Your task to perform on an android device: turn vacation reply on in the gmail app Image 0: 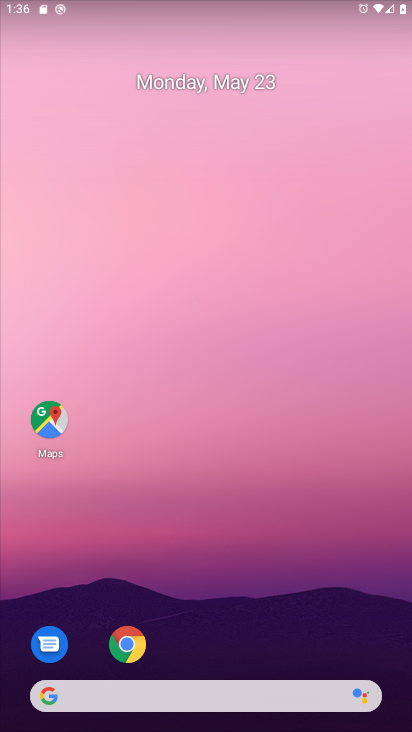
Step 0: drag from (227, 642) to (234, 137)
Your task to perform on an android device: turn vacation reply on in the gmail app Image 1: 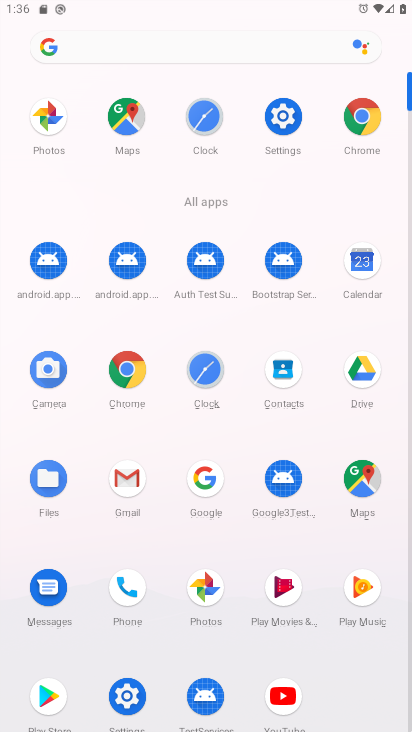
Step 1: click (118, 492)
Your task to perform on an android device: turn vacation reply on in the gmail app Image 2: 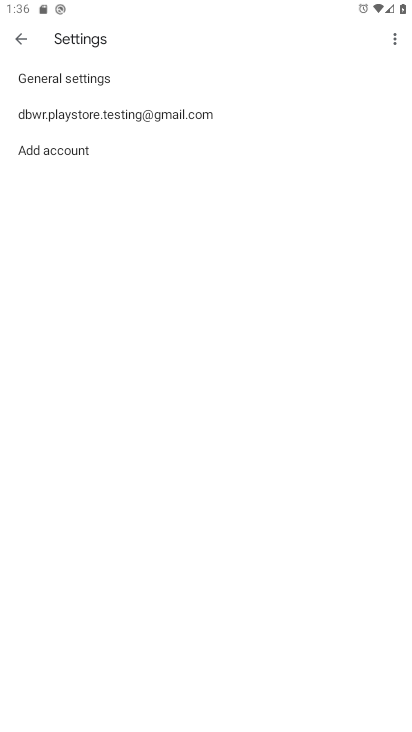
Step 2: click (149, 115)
Your task to perform on an android device: turn vacation reply on in the gmail app Image 3: 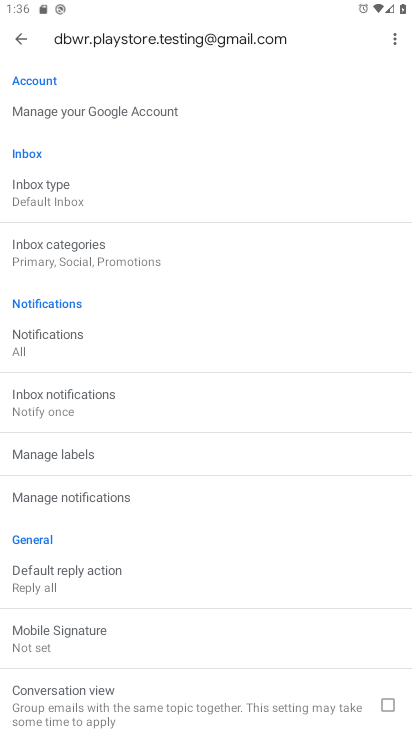
Step 3: drag from (181, 624) to (209, 247)
Your task to perform on an android device: turn vacation reply on in the gmail app Image 4: 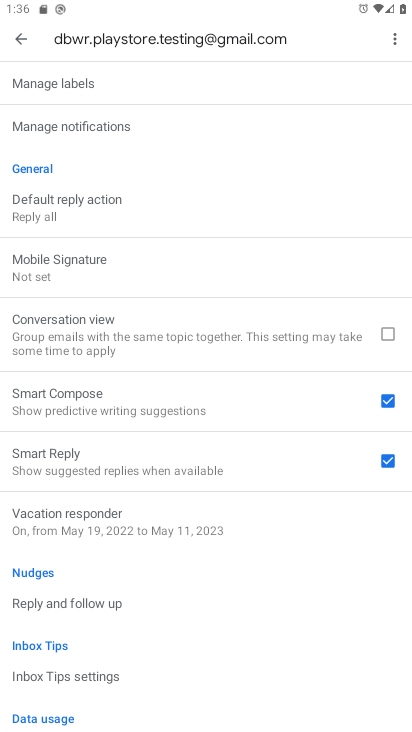
Step 4: click (157, 527)
Your task to perform on an android device: turn vacation reply on in the gmail app Image 5: 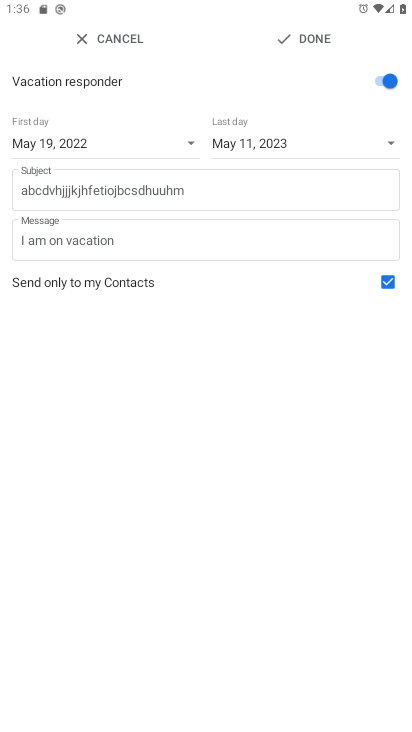
Step 5: task complete